Your task to perform on an android device: Open settings Image 0: 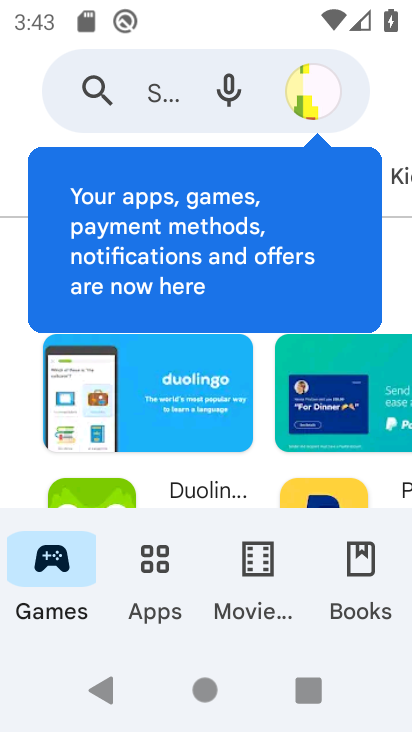
Step 0: press home button
Your task to perform on an android device: Open settings Image 1: 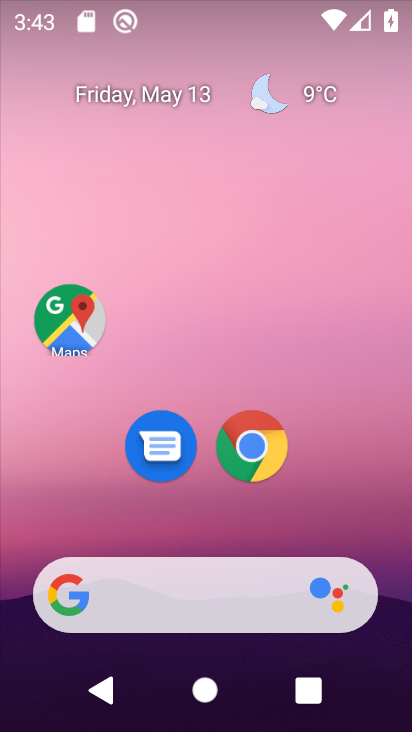
Step 1: drag from (238, 520) to (274, 122)
Your task to perform on an android device: Open settings Image 2: 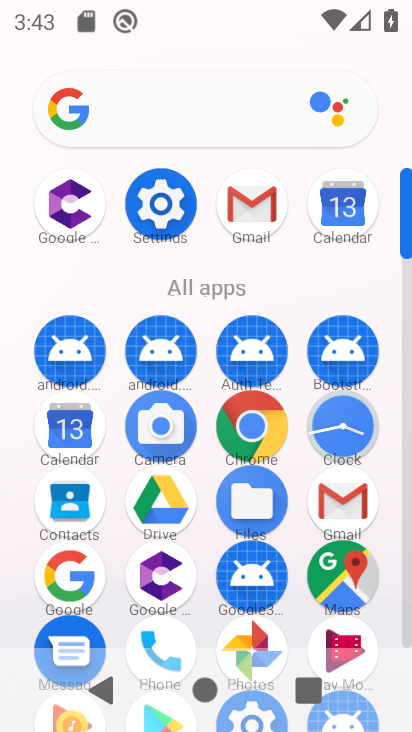
Step 2: click (159, 206)
Your task to perform on an android device: Open settings Image 3: 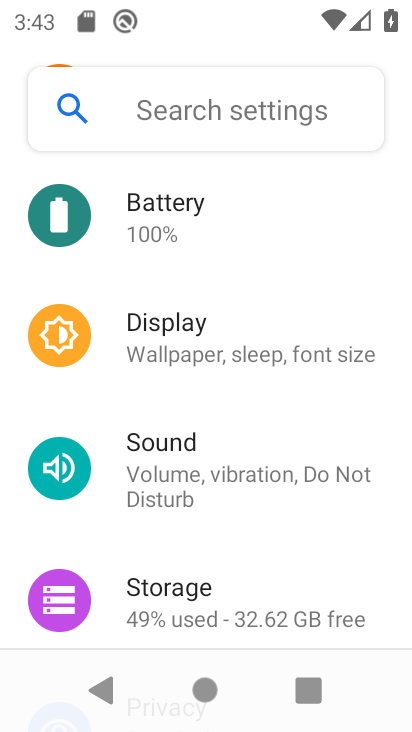
Step 3: task complete